Your task to perform on an android device: Open Chrome and go to settings Image 0: 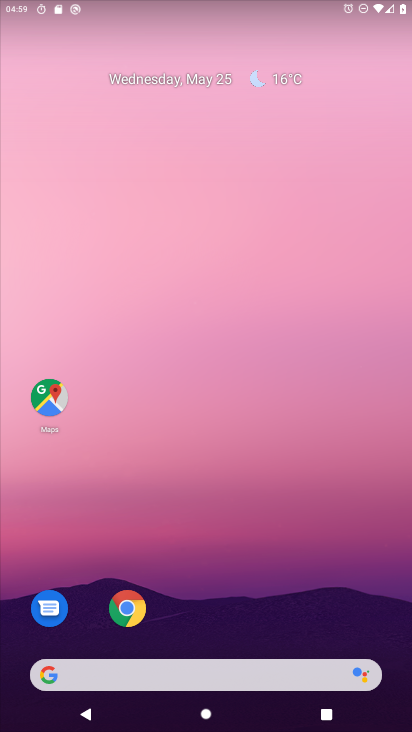
Step 0: click (122, 614)
Your task to perform on an android device: Open Chrome and go to settings Image 1: 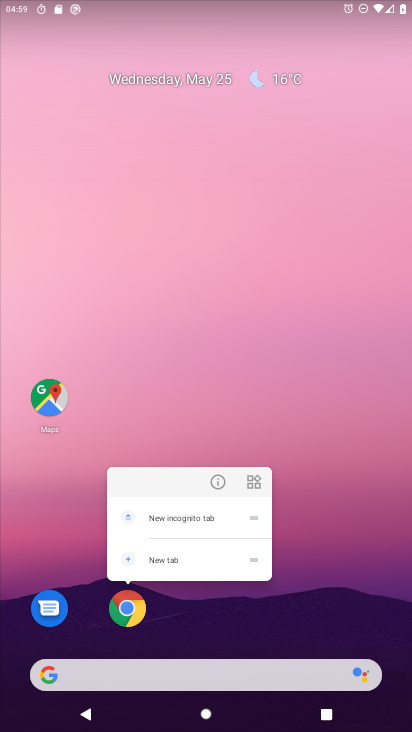
Step 1: click (127, 607)
Your task to perform on an android device: Open Chrome and go to settings Image 2: 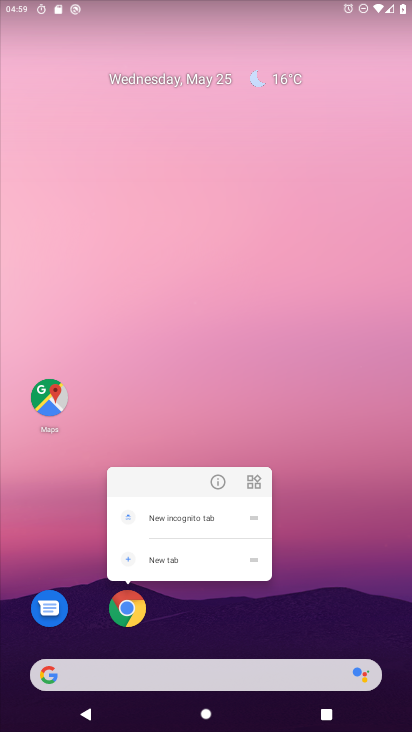
Step 2: click (304, 596)
Your task to perform on an android device: Open Chrome and go to settings Image 3: 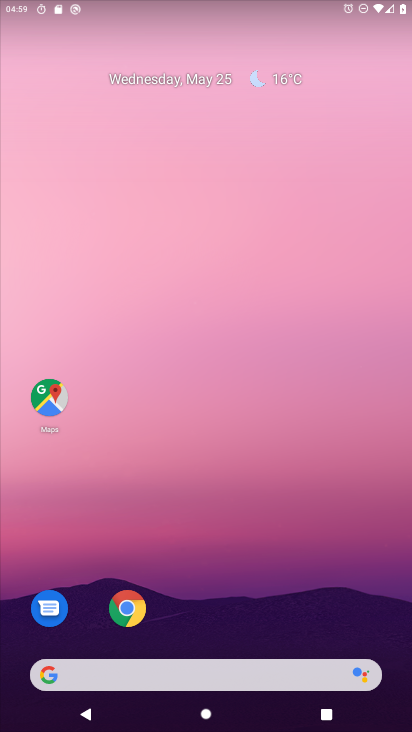
Step 3: drag from (307, 592) to (298, 63)
Your task to perform on an android device: Open Chrome and go to settings Image 4: 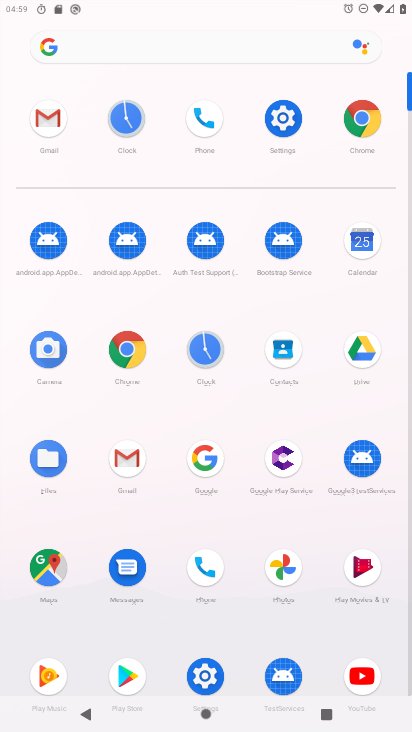
Step 4: click (132, 355)
Your task to perform on an android device: Open Chrome and go to settings Image 5: 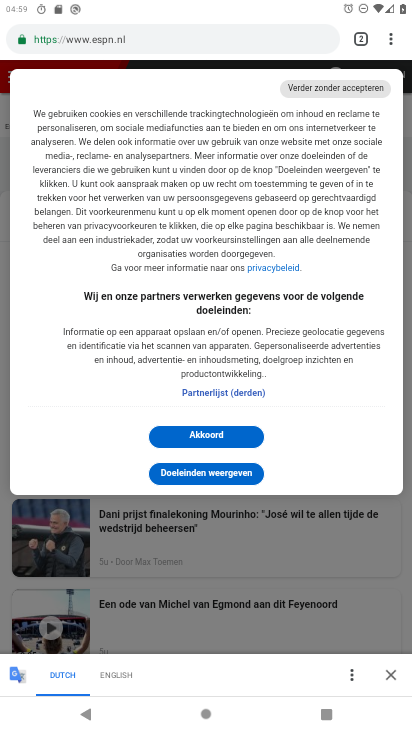
Step 5: click (400, 28)
Your task to perform on an android device: Open Chrome and go to settings Image 6: 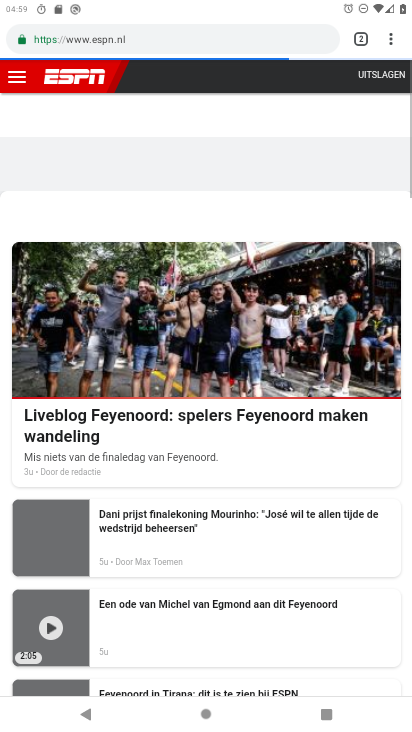
Step 6: task complete